Your task to perform on an android device: Show me the alarms in the clock app Image 0: 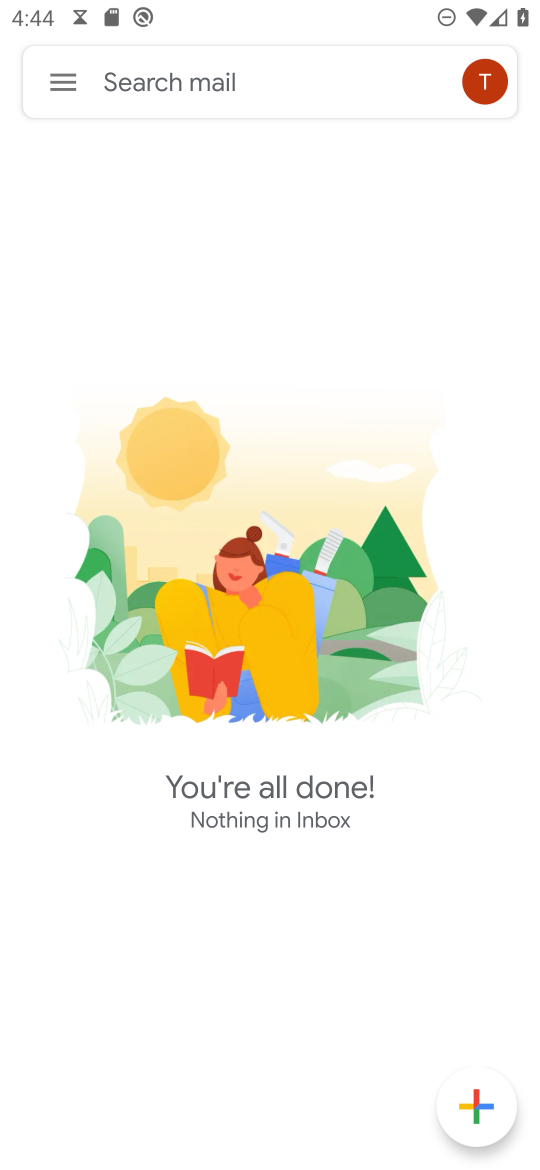
Step 0: press home button
Your task to perform on an android device: Show me the alarms in the clock app Image 1: 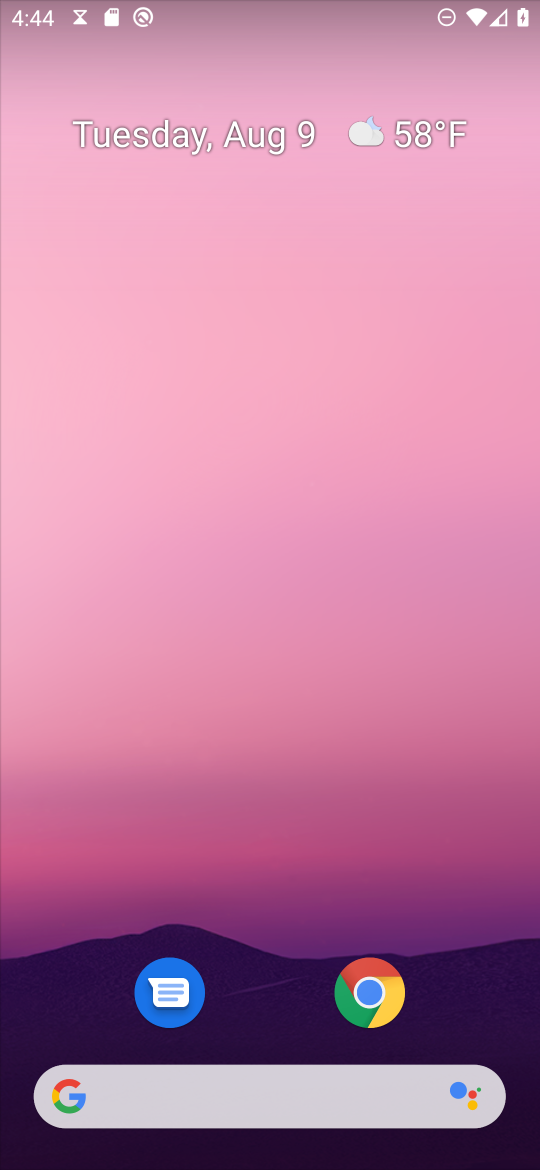
Step 1: drag from (242, 1076) to (284, 1)
Your task to perform on an android device: Show me the alarms in the clock app Image 2: 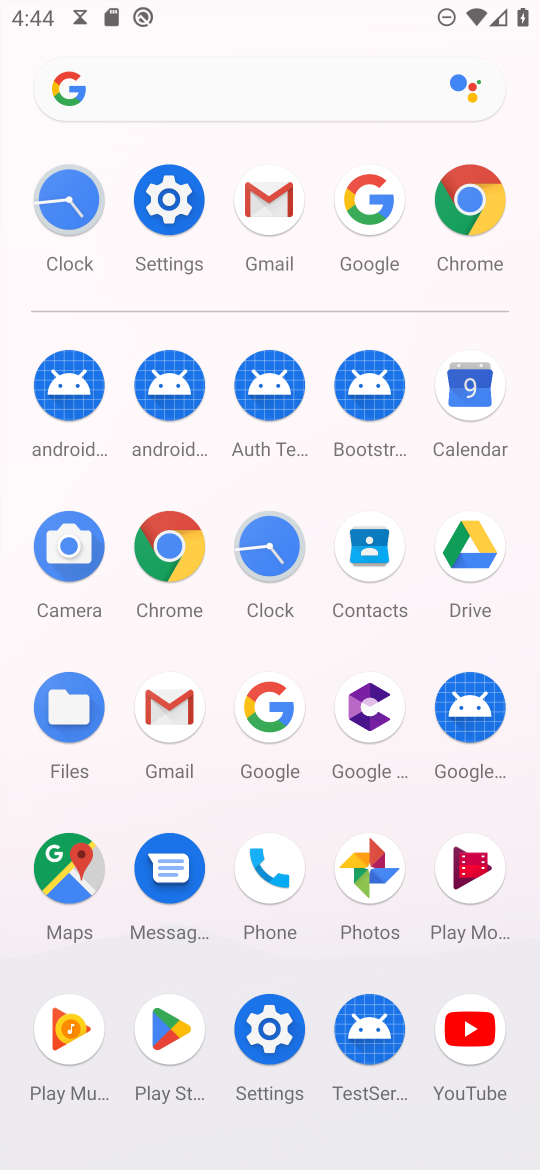
Step 2: click (267, 550)
Your task to perform on an android device: Show me the alarms in the clock app Image 3: 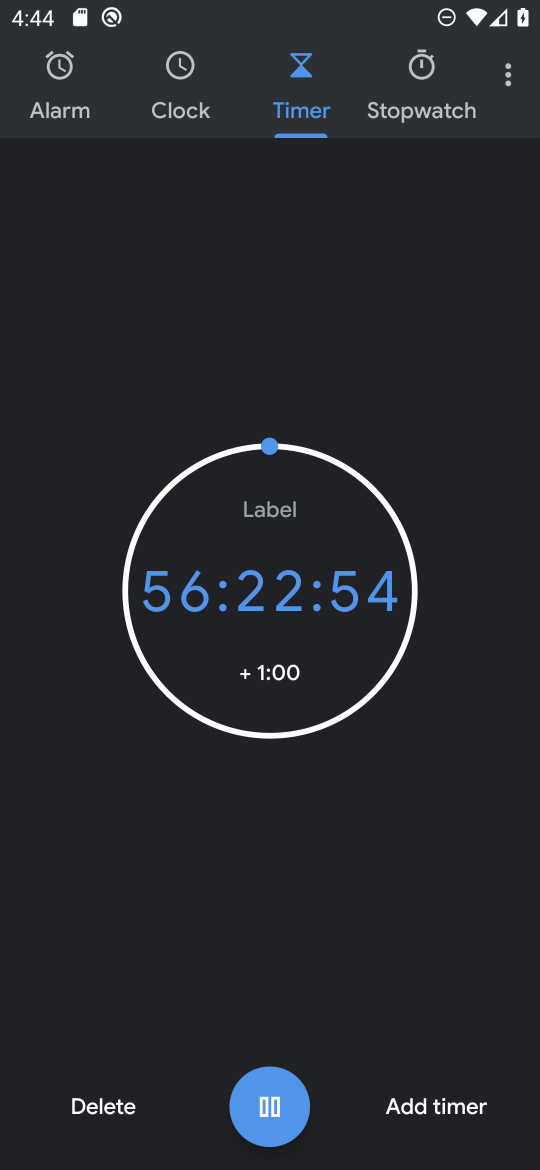
Step 3: click (76, 101)
Your task to perform on an android device: Show me the alarms in the clock app Image 4: 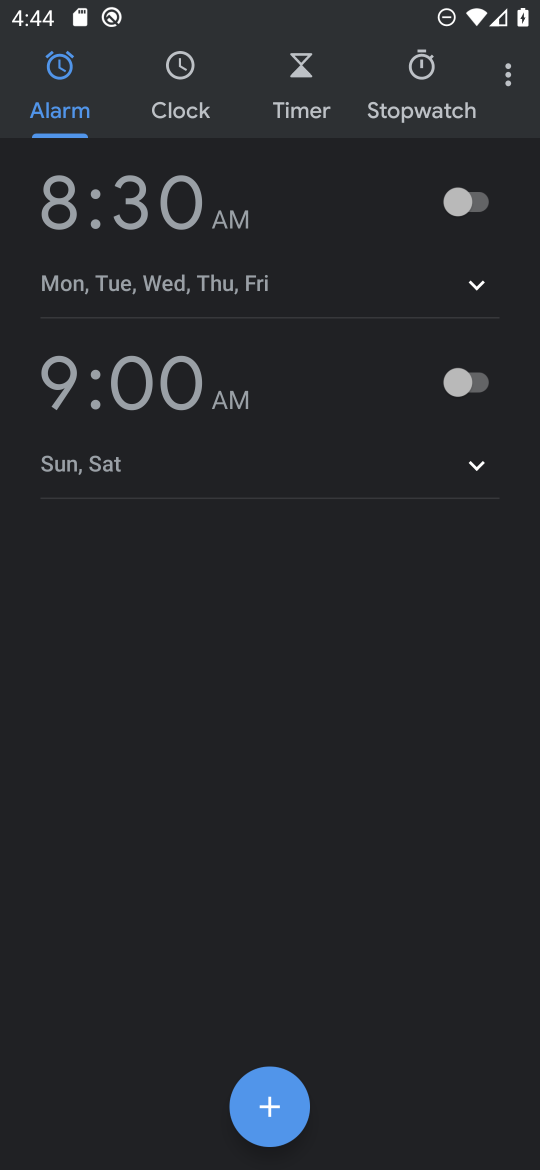
Step 4: task complete